Your task to perform on an android device: clear all cookies in the chrome app Image 0: 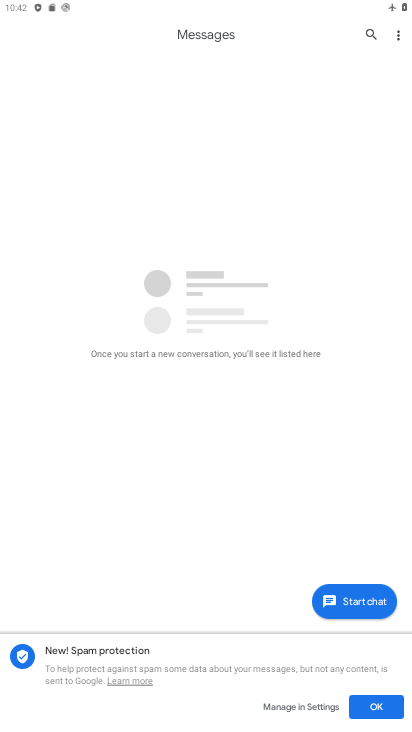
Step 0: press home button
Your task to perform on an android device: clear all cookies in the chrome app Image 1: 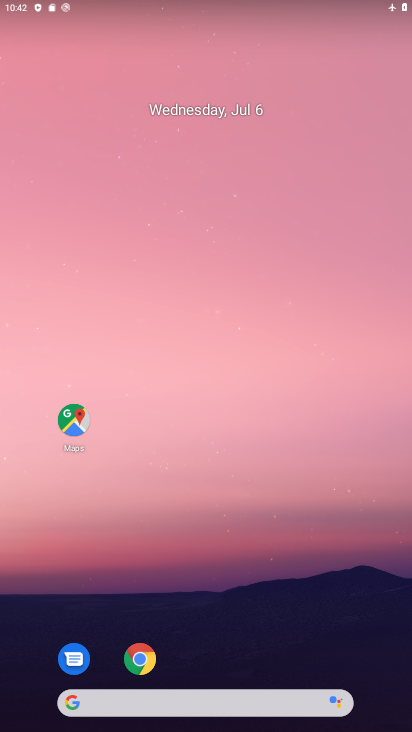
Step 1: drag from (226, 640) to (174, 160)
Your task to perform on an android device: clear all cookies in the chrome app Image 2: 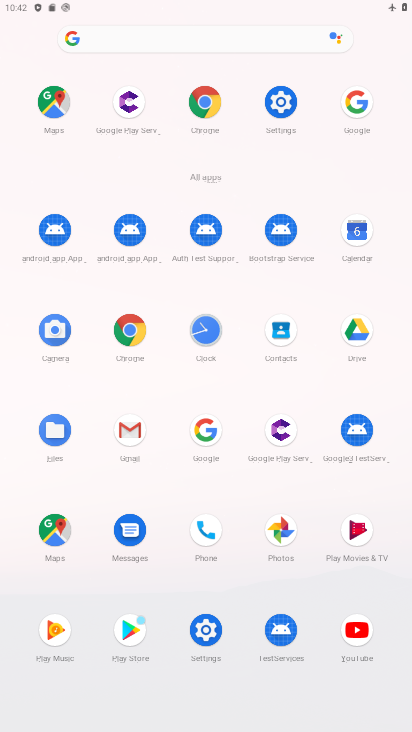
Step 2: click (212, 112)
Your task to perform on an android device: clear all cookies in the chrome app Image 3: 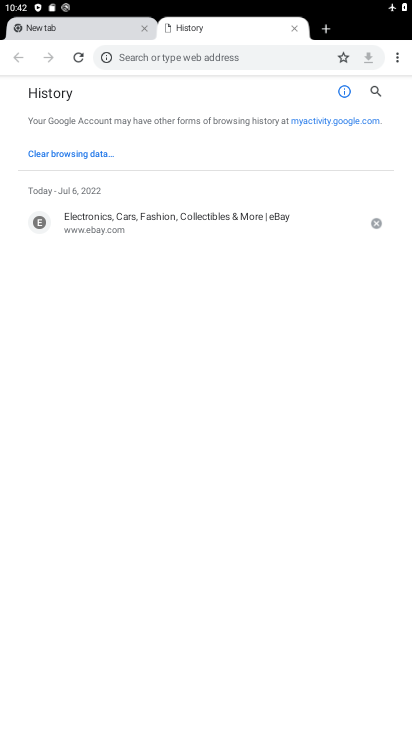
Step 3: click (401, 59)
Your task to perform on an android device: clear all cookies in the chrome app Image 4: 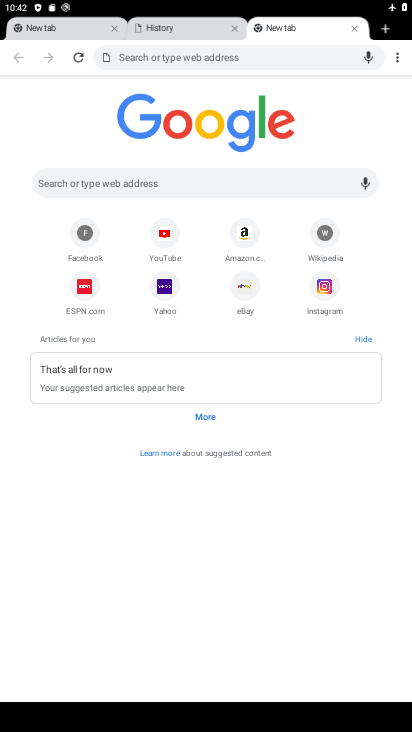
Step 4: click (395, 59)
Your task to perform on an android device: clear all cookies in the chrome app Image 5: 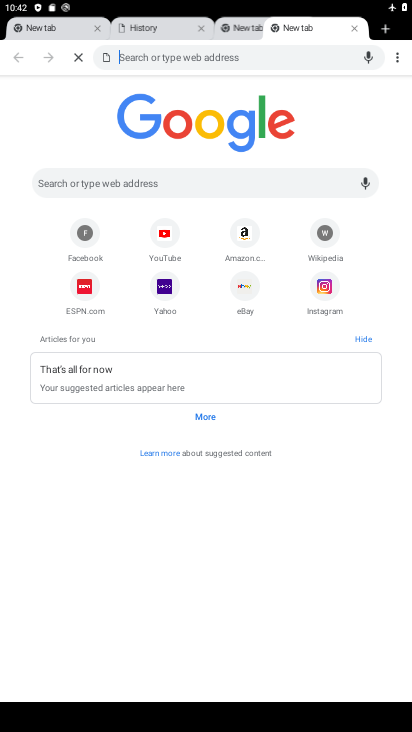
Step 5: click (395, 59)
Your task to perform on an android device: clear all cookies in the chrome app Image 6: 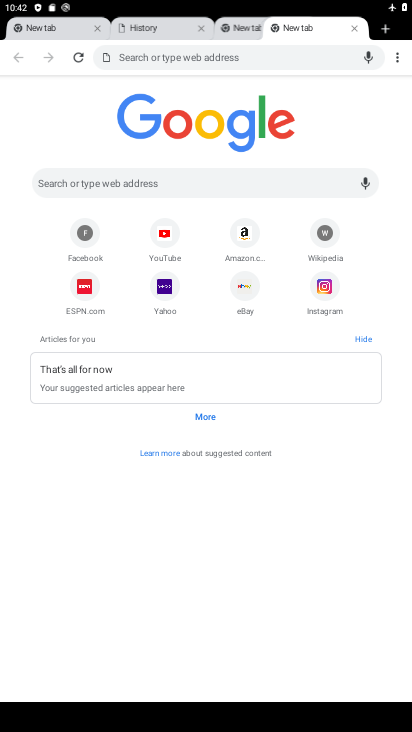
Step 6: task complete